Your task to perform on an android device: Open the stopwatch Image 0: 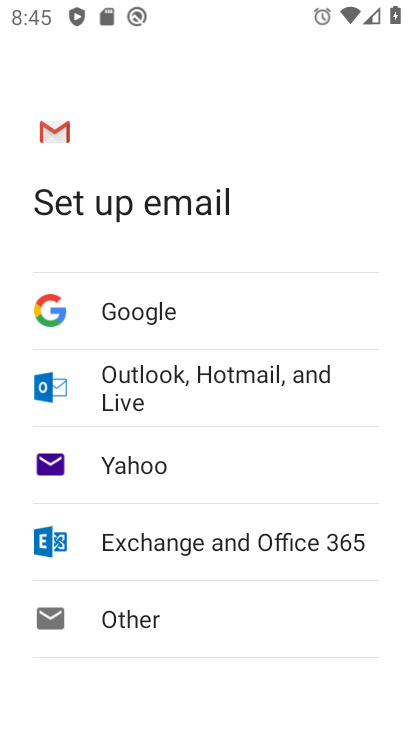
Step 0: press home button
Your task to perform on an android device: Open the stopwatch Image 1: 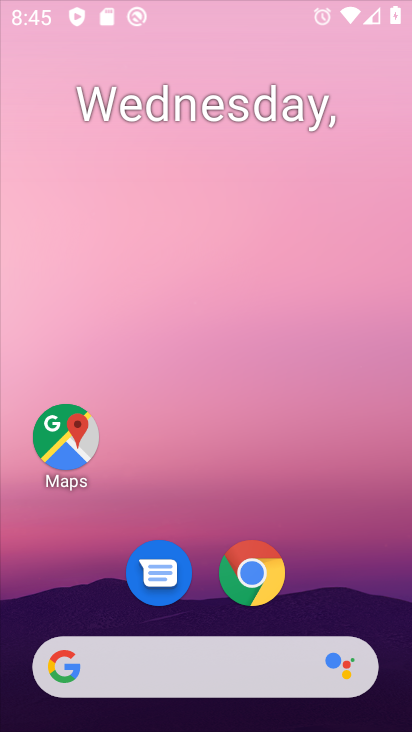
Step 1: drag from (235, 658) to (233, 258)
Your task to perform on an android device: Open the stopwatch Image 2: 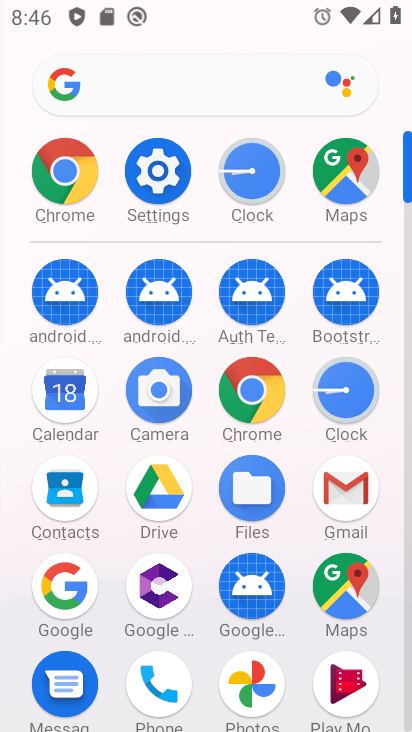
Step 2: click (353, 383)
Your task to perform on an android device: Open the stopwatch Image 3: 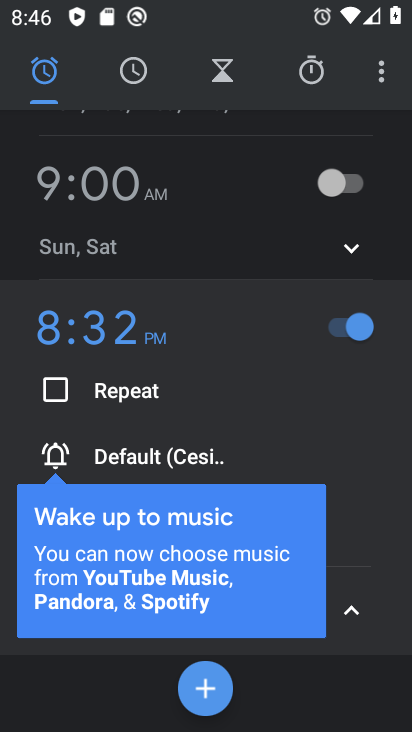
Step 3: task complete